Your task to perform on an android device: turn smart compose on in the gmail app Image 0: 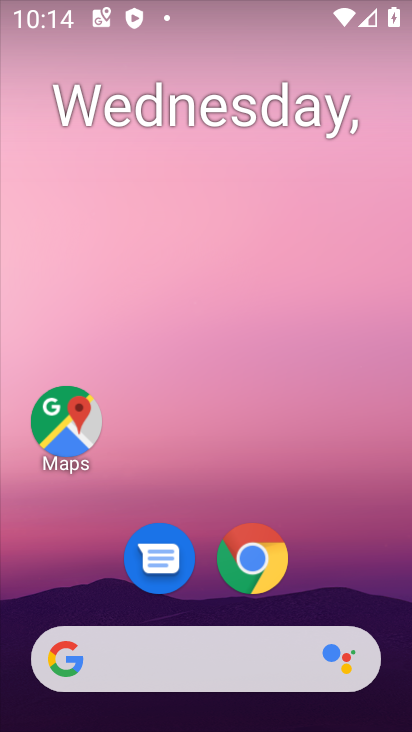
Step 0: task complete